Your task to perform on an android device: Open Chrome and go to settings Image 0: 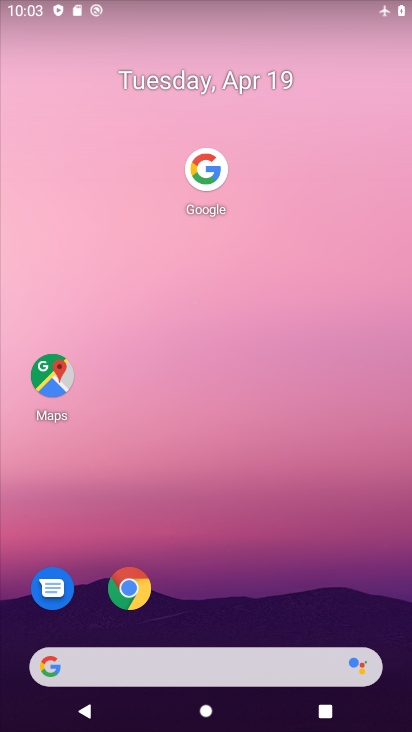
Step 0: click (133, 588)
Your task to perform on an android device: Open Chrome and go to settings Image 1: 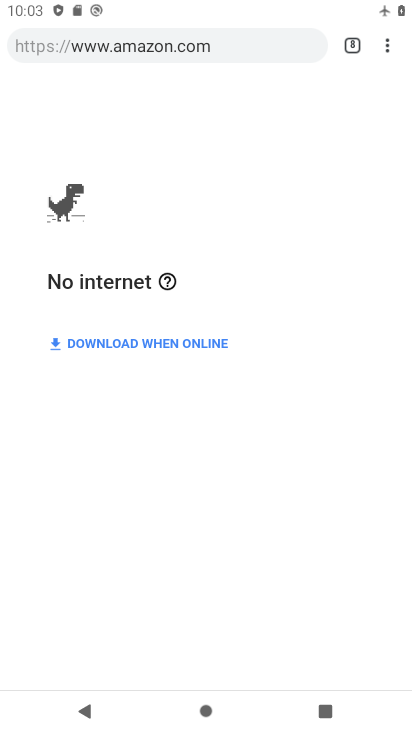
Step 1: click (386, 45)
Your task to perform on an android device: Open Chrome and go to settings Image 2: 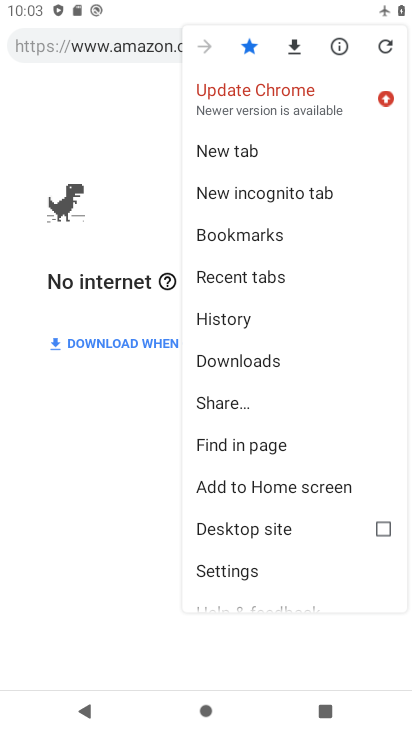
Step 2: click (238, 567)
Your task to perform on an android device: Open Chrome and go to settings Image 3: 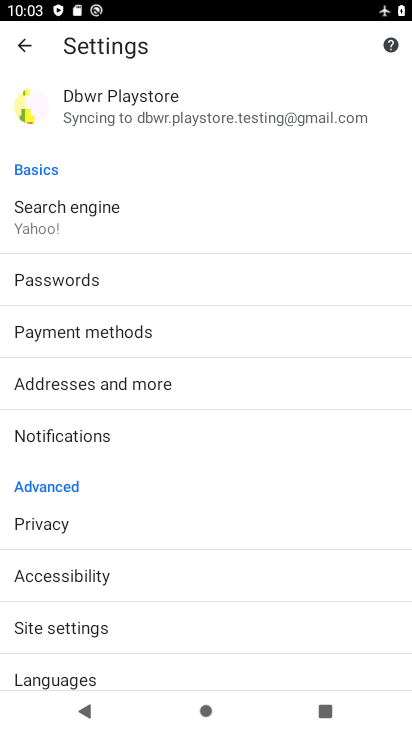
Step 3: task complete